Your task to perform on an android device: Open Wikipedia Image 0: 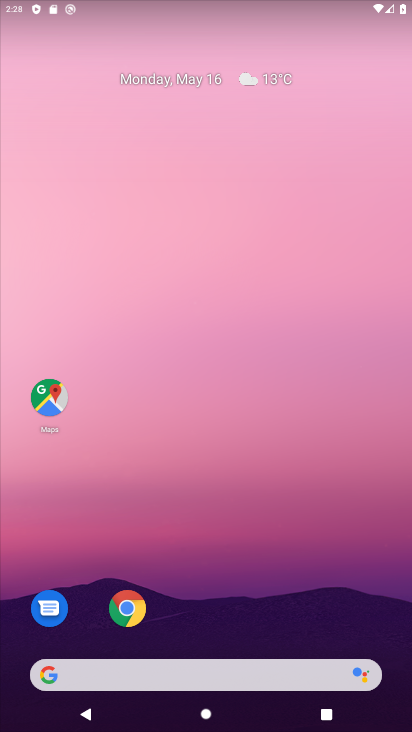
Step 0: click (129, 607)
Your task to perform on an android device: Open Wikipedia Image 1: 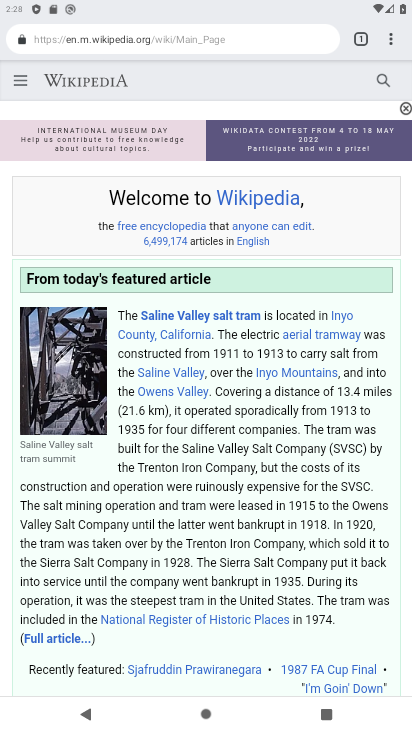
Step 1: task complete